Your task to perform on an android device: Search for logitech g pro on costco, select the first entry, add it to the cart, then select checkout. Image 0: 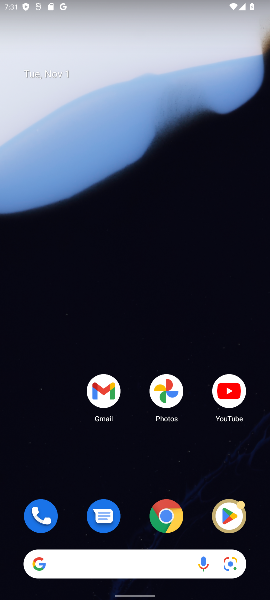
Step 0: drag from (140, 477) to (150, 48)
Your task to perform on an android device: Search for logitech g pro on costco, select the first entry, add it to the cart, then select checkout. Image 1: 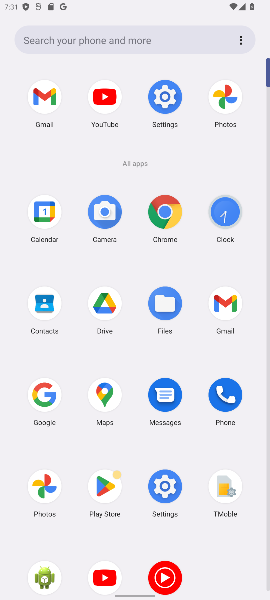
Step 1: click (168, 208)
Your task to perform on an android device: Search for logitech g pro on costco, select the first entry, add it to the cart, then select checkout. Image 2: 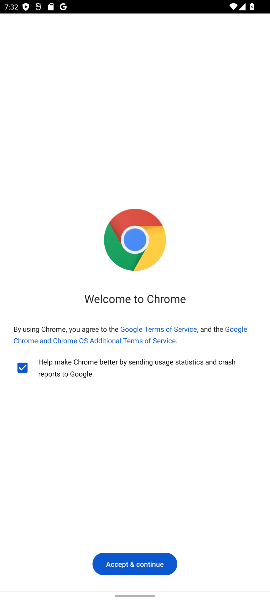
Step 2: click (133, 559)
Your task to perform on an android device: Search for logitech g pro on costco, select the first entry, add it to the cart, then select checkout. Image 3: 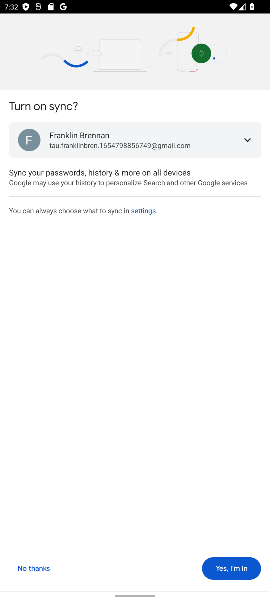
Step 3: click (227, 569)
Your task to perform on an android device: Search for logitech g pro on costco, select the first entry, add it to the cart, then select checkout. Image 4: 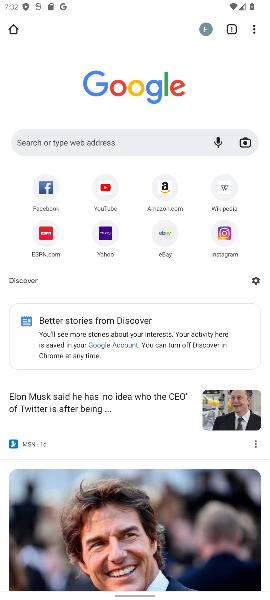
Step 4: click (50, 138)
Your task to perform on an android device: Search for logitech g pro on costco, select the first entry, add it to the cart, then select checkout. Image 5: 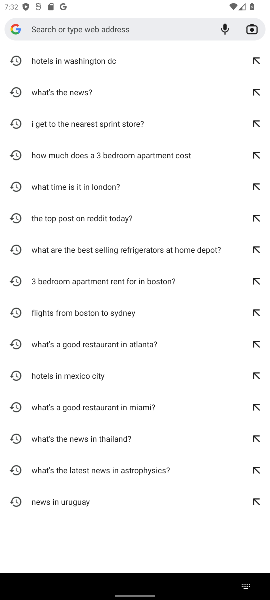
Step 5: type "costco"
Your task to perform on an android device: Search for logitech g pro on costco, select the first entry, add it to the cart, then select checkout. Image 6: 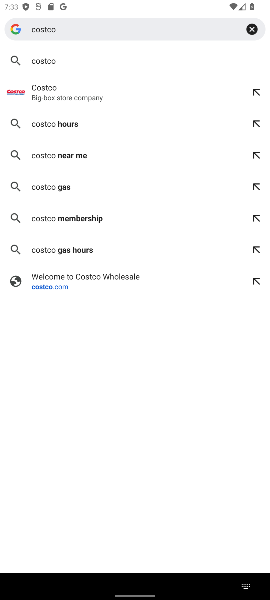
Step 6: click (61, 83)
Your task to perform on an android device: Search for logitech g pro on costco, select the first entry, add it to the cart, then select checkout. Image 7: 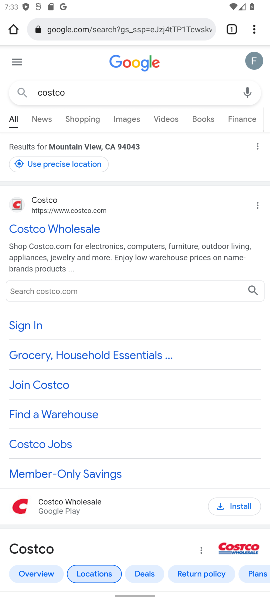
Step 7: click (66, 229)
Your task to perform on an android device: Search for logitech g pro on costco, select the first entry, add it to the cart, then select checkout. Image 8: 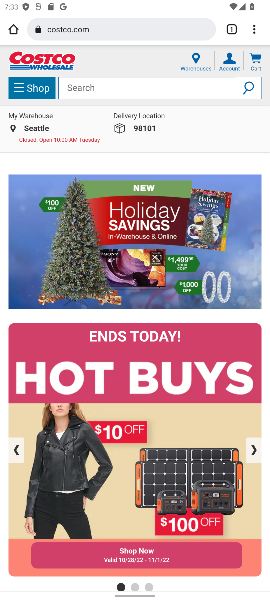
Step 8: click (93, 84)
Your task to perform on an android device: Search for logitech g pro on costco, select the first entry, add it to the cart, then select checkout. Image 9: 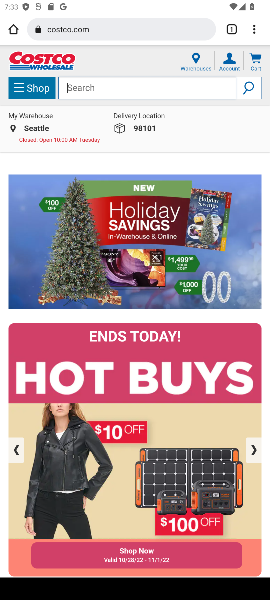
Step 9: click (87, 91)
Your task to perform on an android device: Search for logitech g pro on costco, select the first entry, add it to the cart, then select checkout. Image 10: 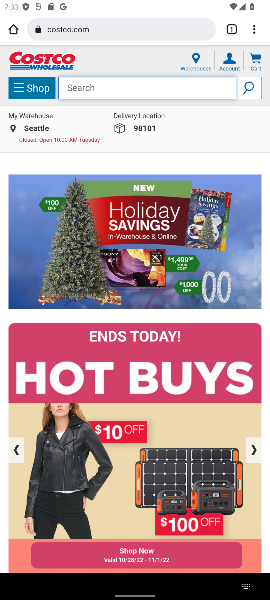
Step 10: type "logitech g pro"
Your task to perform on an android device: Search for logitech g pro on costco, select the first entry, add it to the cart, then select checkout. Image 11: 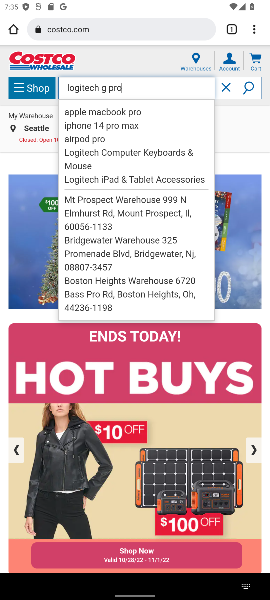
Step 11: click (144, 147)
Your task to perform on an android device: Search for logitech g pro on costco, select the first entry, add it to the cart, then select checkout. Image 12: 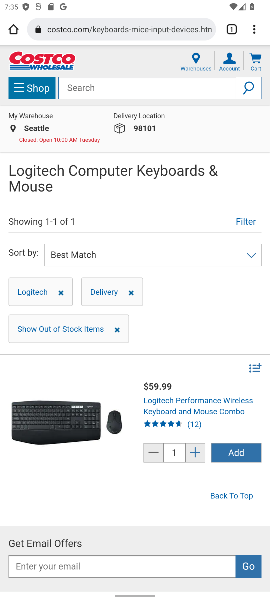
Step 12: drag from (153, 347) to (176, 103)
Your task to perform on an android device: Search for logitech g pro on costco, select the first entry, add it to the cart, then select checkout. Image 13: 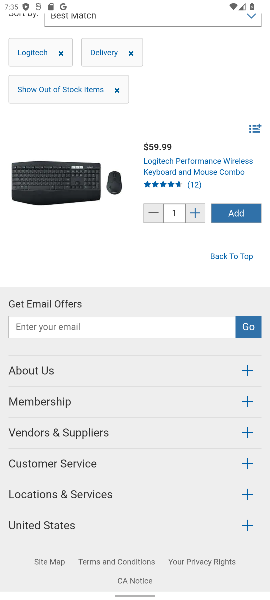
Step 13: click (236, 210)
Your task to perform on an android device: Search for logitech g pro on costco, select the first entry, add it to the cart, then select checkout. Image 14: 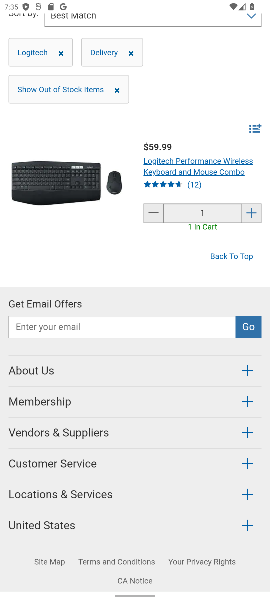
Step 14: drag from (162, 221) to (148, 521)
Your task to perform on an android device: Search for logitech g pro on costco, select the first entry, add it to the cart, then select checkout. Image 15: 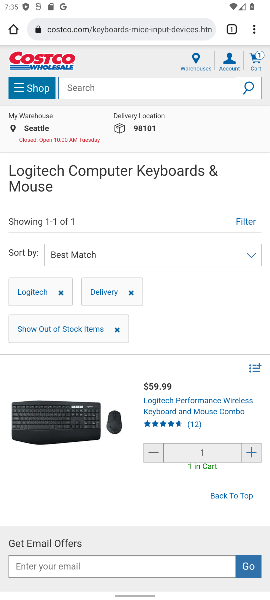
Step 15: click (257, 58)
Your task to perform on an android device: Search for logitech g pro on costco, select the first entry, add it to the cart, then select checkout. Image 16: 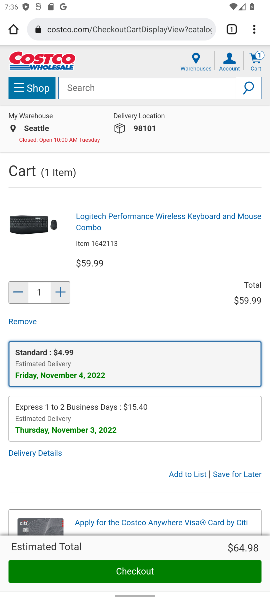
Step 16: click (136, 576)
Your task to perform on an android device: Search for logitech g pro on costco, select the first entry, add it to the cart, then select checkout. Image 17: 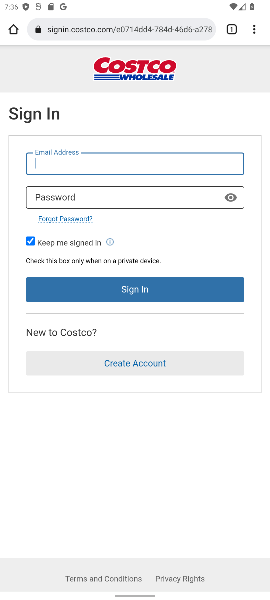
Step 17: task complete